Your task to perform on an android device: Open the stopwatch Image 0: 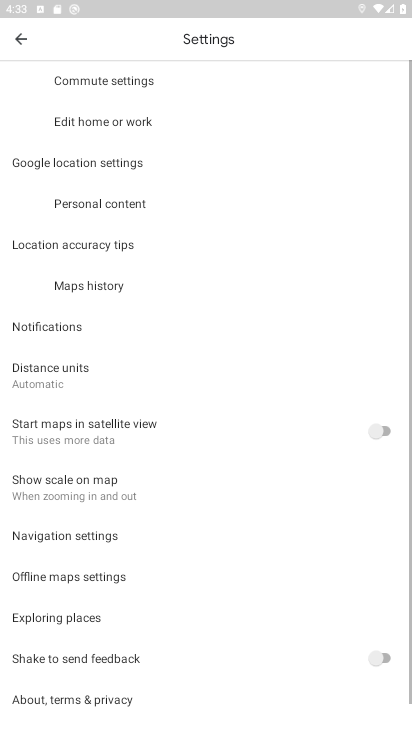
Step 0: press home button
Your task to perform on an android device: Open the stopwatch Image 1: 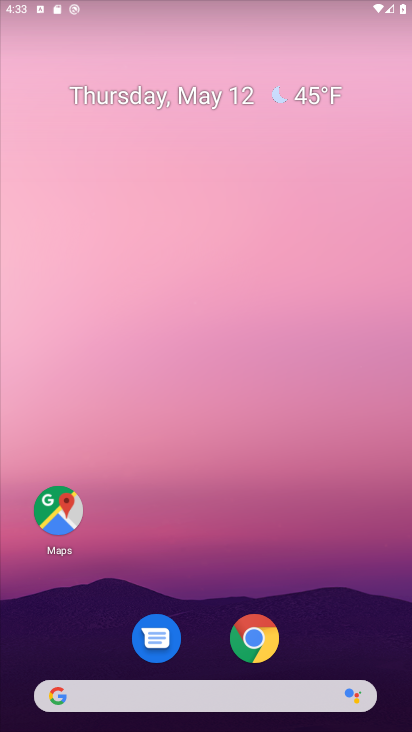
Step 1: drag from (289, 421) to (218, 78)
Your task to perform on an android device: Open the stopwatch Image 2: 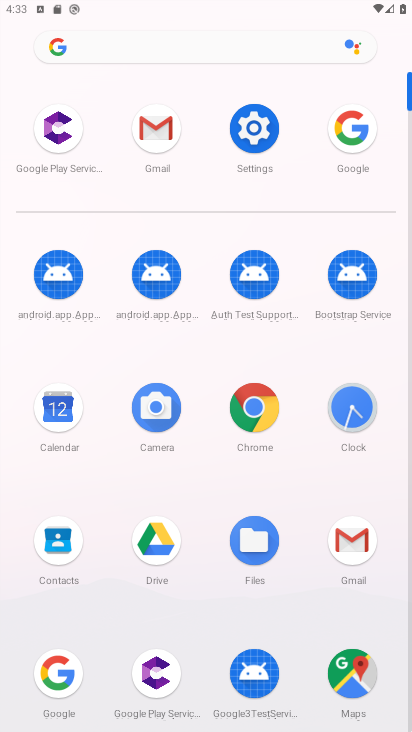
Step 2: click (351, 426)
Your task to perform on an android device: Open the stopwatch Image 3: 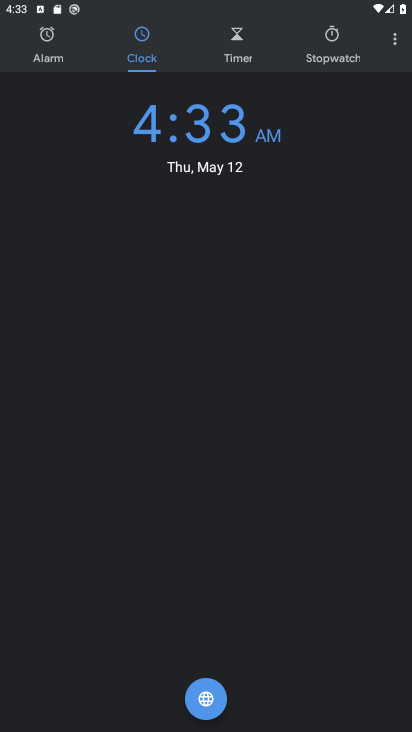
Step 3: click (310, 36)
Your task to perform on an android device: Open the stopwatch Image 4: 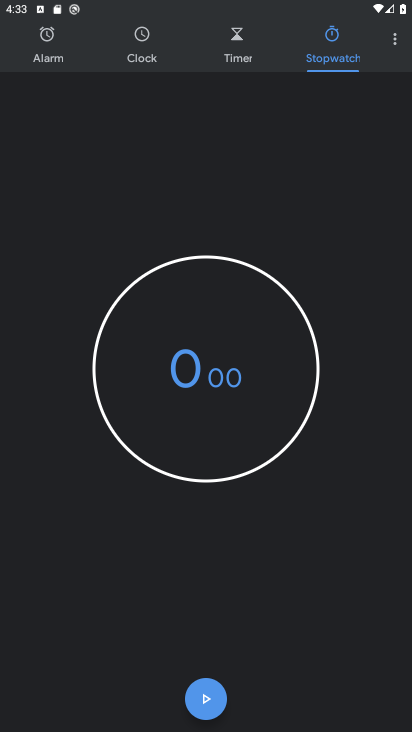
Step 4: task complete